Your task to perform on an android device: turn on translation in the chrome app Image 0: 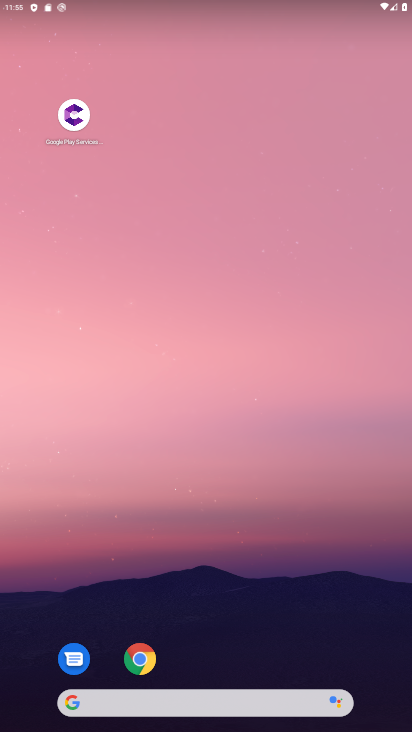
Step 0: click (156, 652)
Your task to perform on an android device: turn on translation in the chrome app Image 1: 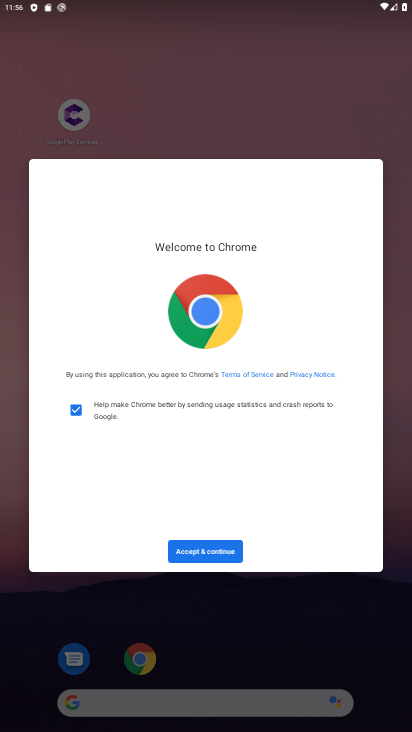
Step 1: click (213, 563)
Your task to perform on an android device: turn on translation in the chrome app Image 2: 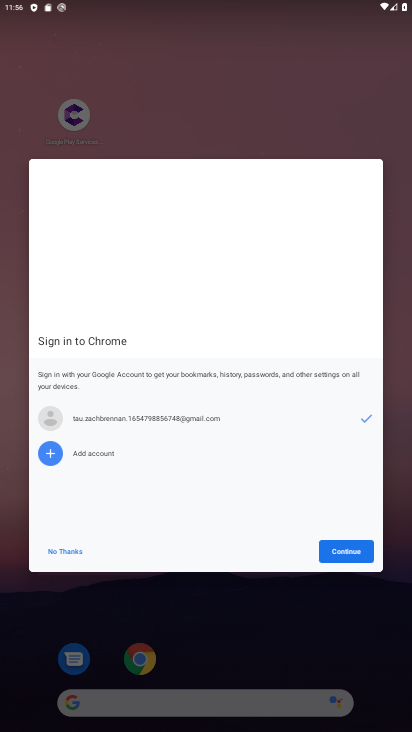
Step 2: press back button
Your task to perform on an android device: turn on translation in the chrome app Image 3: 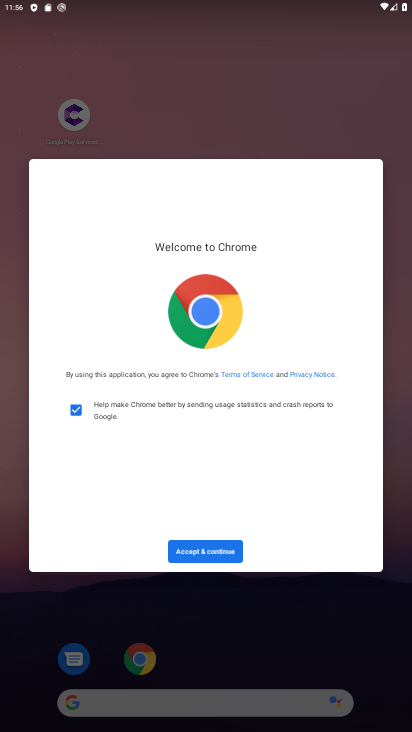
Step 3: click (208, 550)
Your task to perform on an android device: turn on translation in the chrome app Image 4: 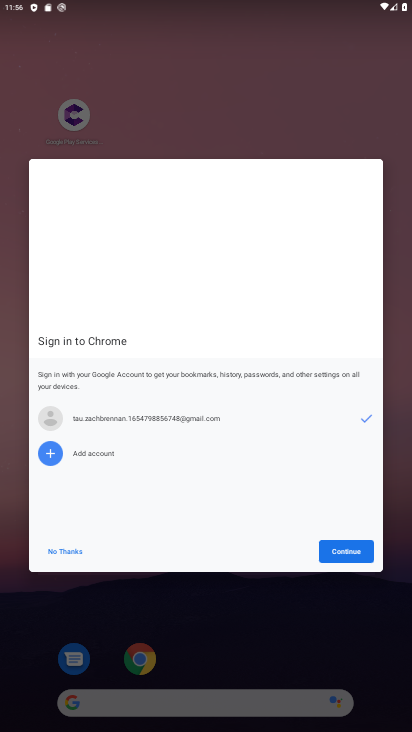
Step 4: click (326, 560)
Your task to perform on an android device: turn on translation in the chrome app Image 5: 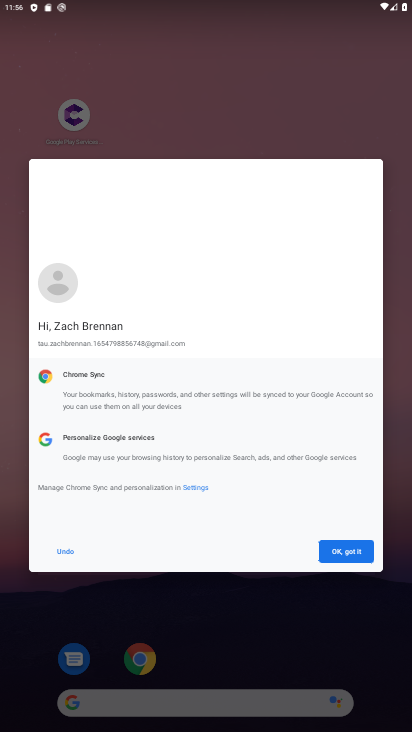
Step 5: click (347, 550)
Your task to perform on an android device: turn on translation in the chrome app Image 6: 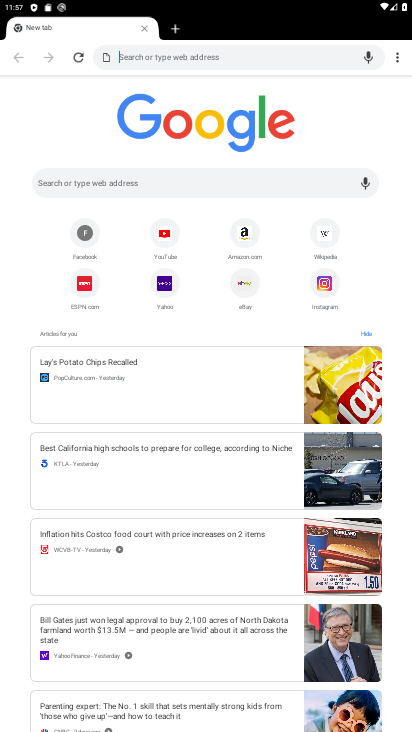
Step 6: drag from (398, 57) to (276, 266)
Your task to perform on an android device: turn on translation in the chrome app Image 7: 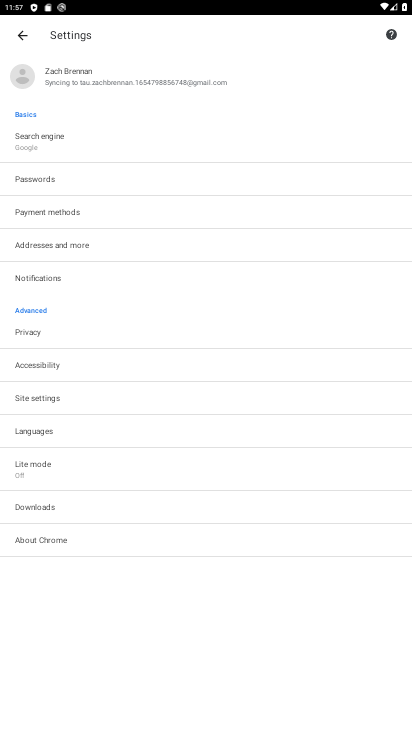
Step 7: click (22, 430)
Your task to perform on an android device: turn on translation in the chrome app Image 8: 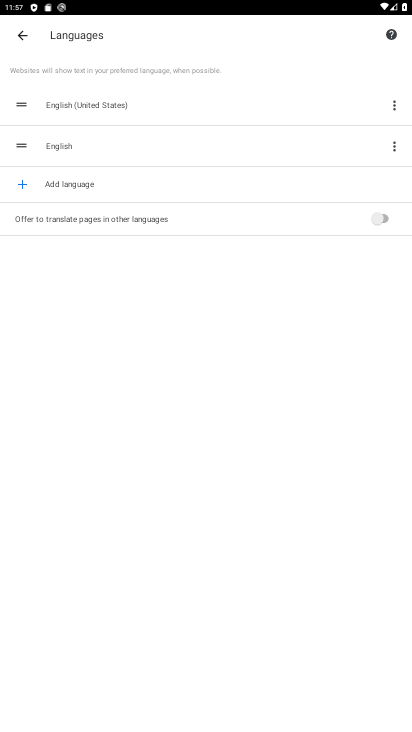
Step 8: click (389, 215)
Your task to perform on an android device: turn on translation in the chrome app Image 9: 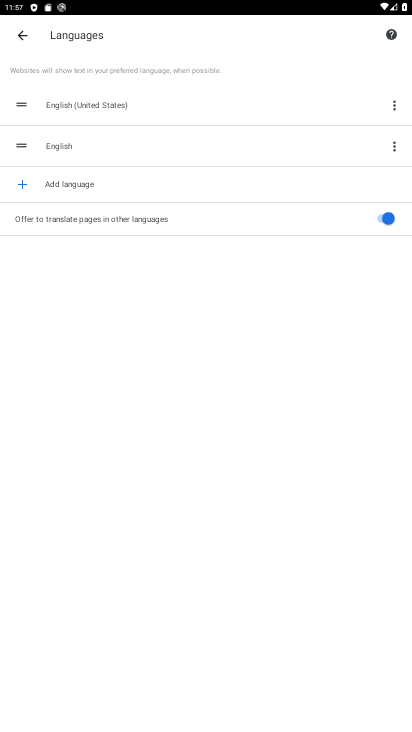
Step 9: task complete